Your task to perform on an android device: open app "ColorNote Notepad Notes" Image 0: 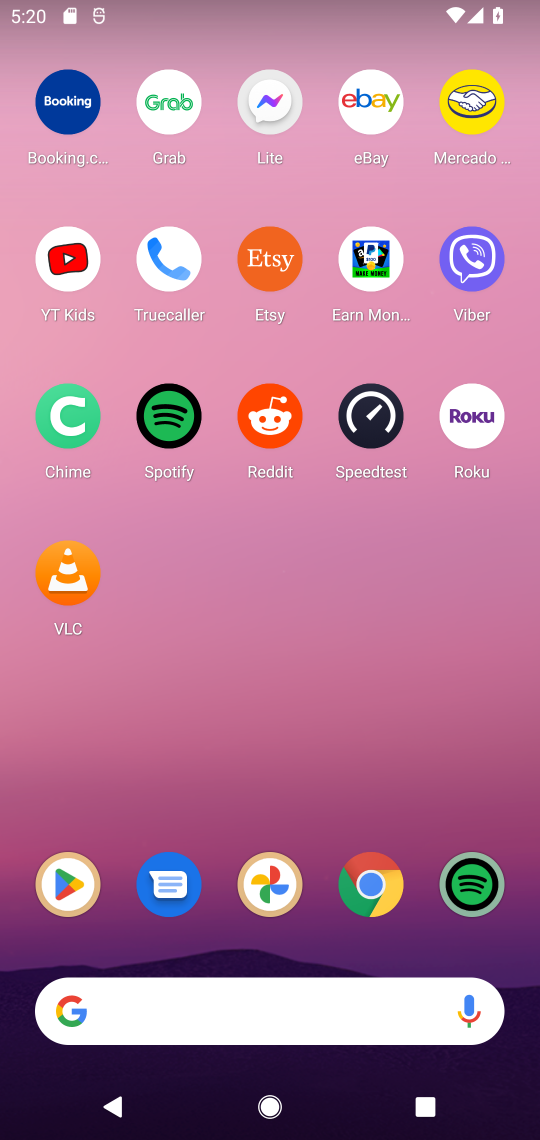
Step 0: drag from (302, 743) to (311, 99)
Your task to perform on an android device: open app "ColorNote Notepad Notes" Image 1: 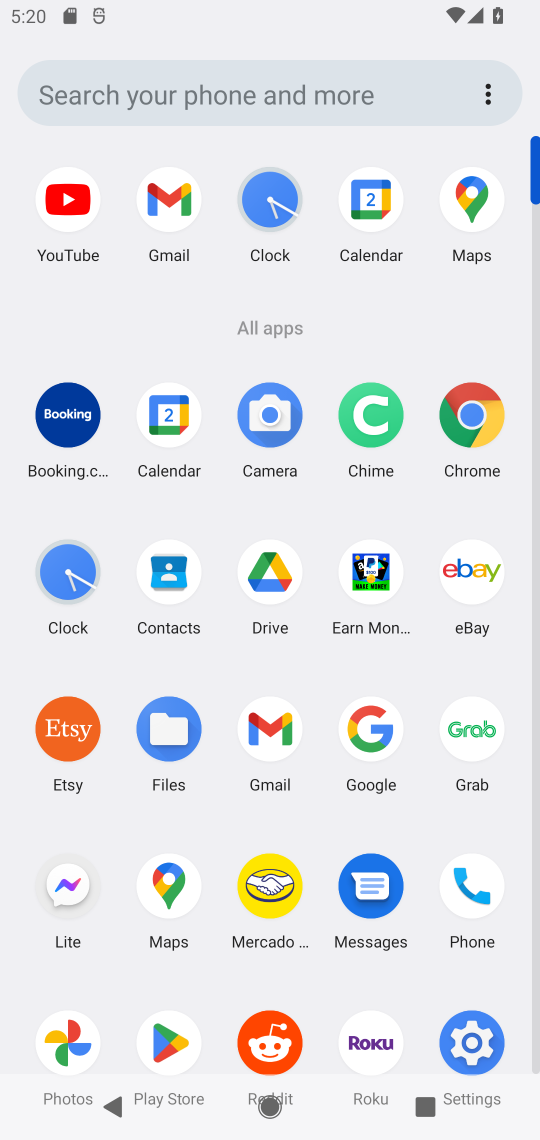
Step 1: click (188, 1033)
Your task to perform on an android device: open app "ColorNote Notepad Notes" Image 2: 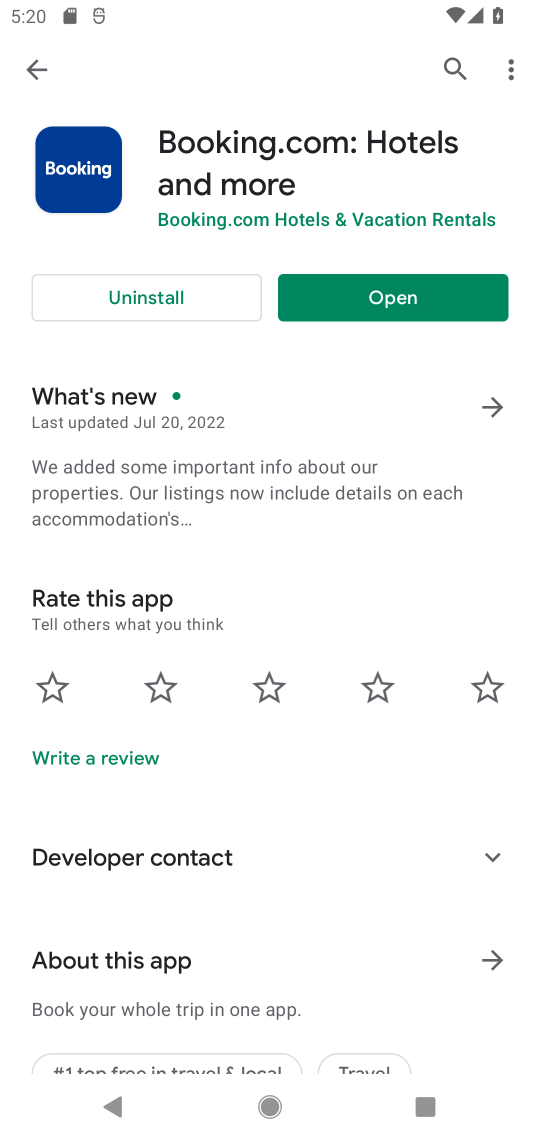
Step 2: click (42, 68)
Your task to perform on an android device: open app "ColorNote Notepad Notes" Image 3: 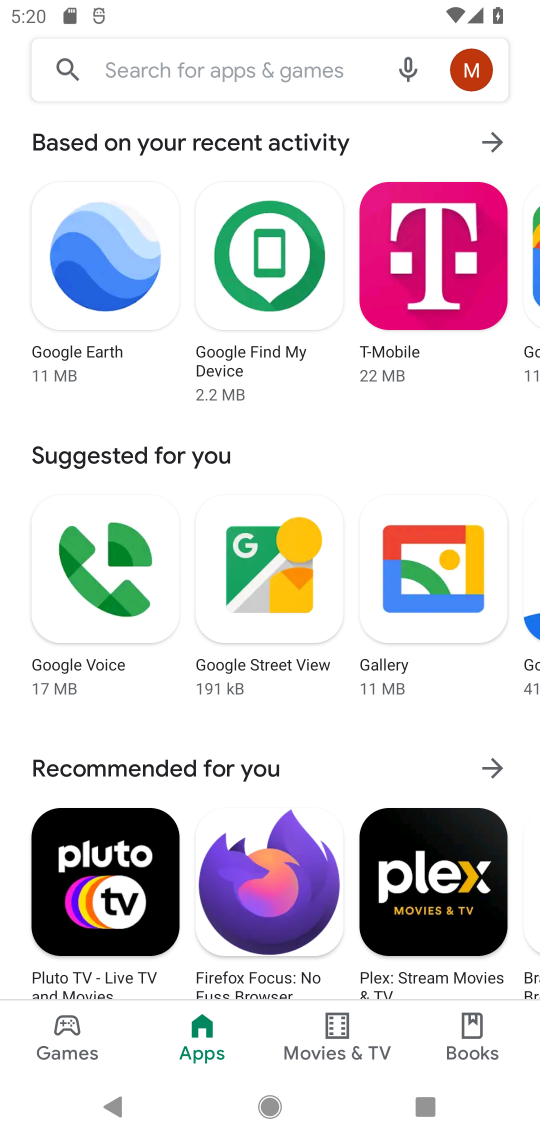
Step 3: click (137, 65)
Your task to perform on an android device: open app "ColorNote Notepad Notes" Image 4: 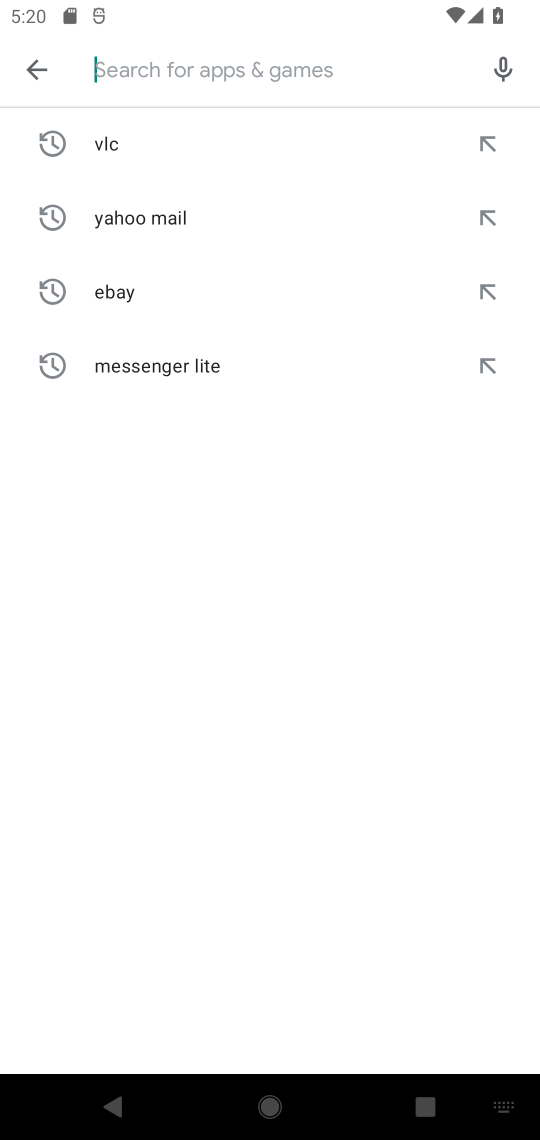
Step 4: drag from (236, 1134) to (525, 1134)
Your task to perform on an android device: open app "ColorNote Notepad Notes" Image 5: 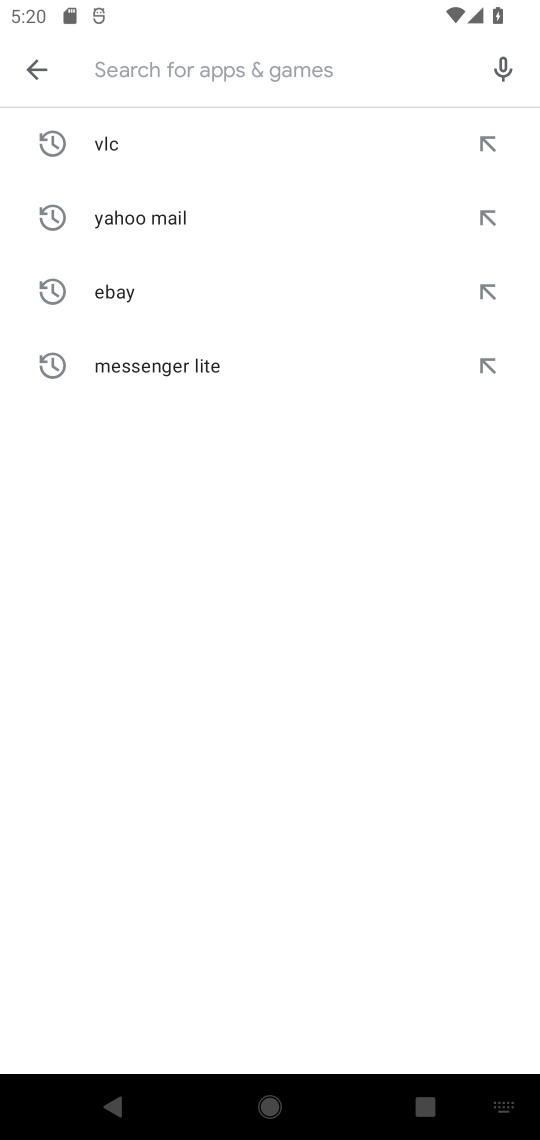
Step 5: type "ColorNote Notepad Notes""
Your task to perform on an android device: open app "ColorNote Notepad Notes" Image 6: 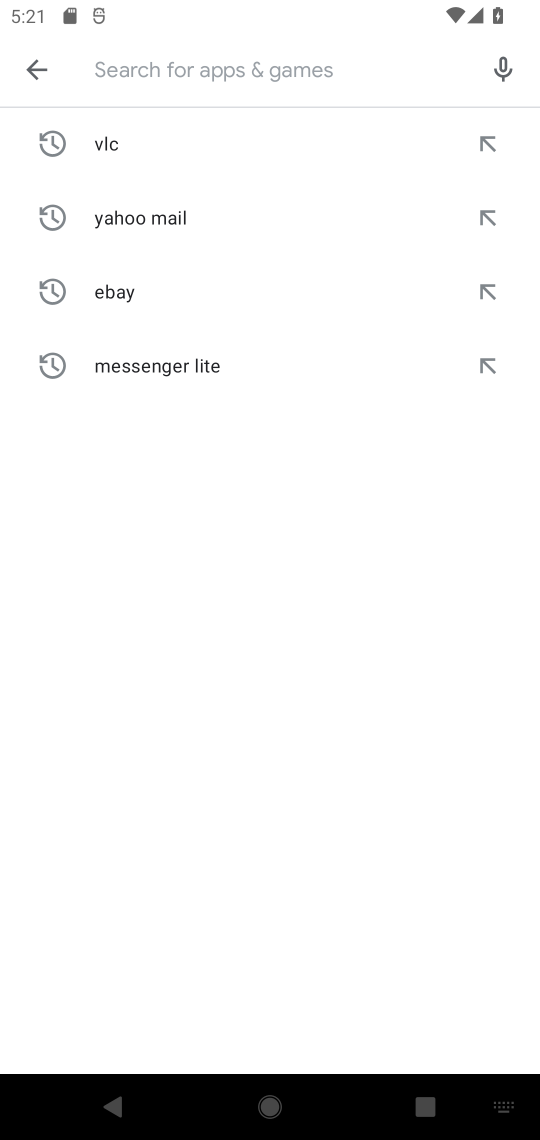
Step 6: type ""
Your task to perform on an android device: open app "ColorNote Notepad Notes" Image 7: 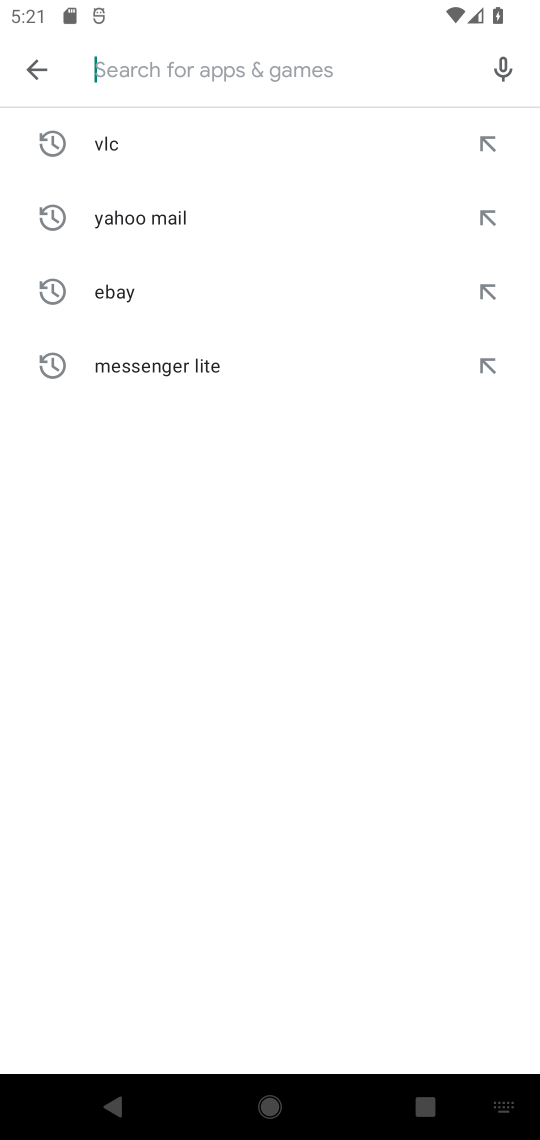
Step 7: type "Colornote notoad notes"
Your task to perform on an android device: open app "ColorNote Notepad Notes" Image 8: 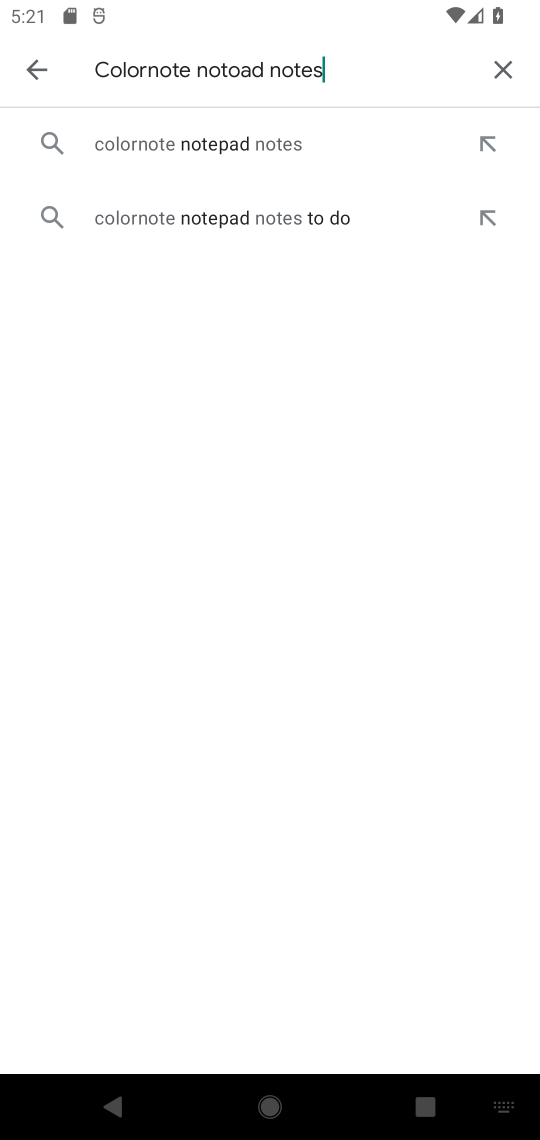
Step 8: click (192, 152)
Your task to perform on an android device: open app "ColorNote Notepad Notes" Image 9: 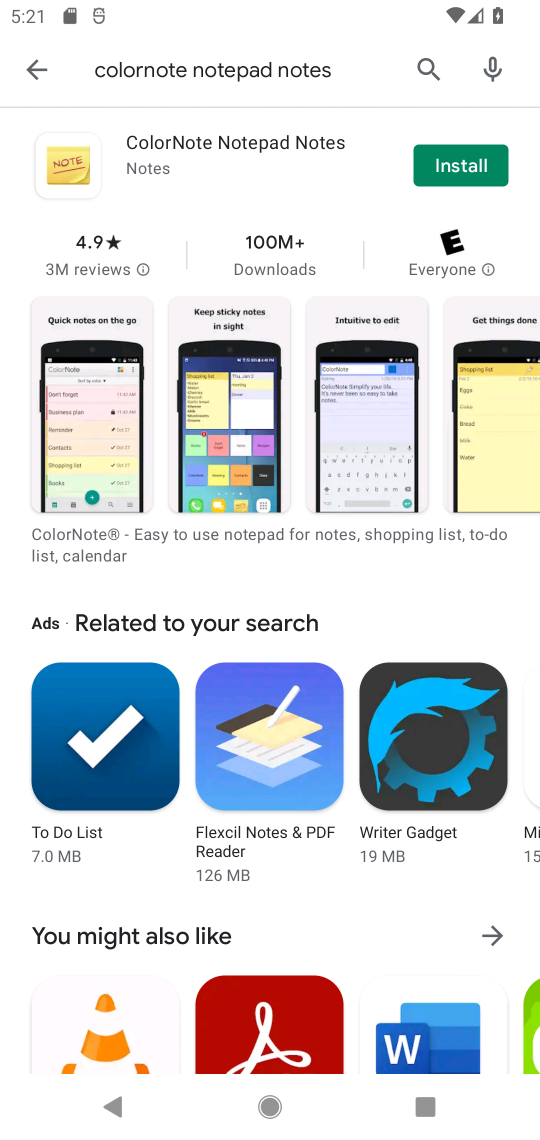
Step 9: click (413, 146)
Your task to perform on an android device: open app "ColorNote Notepad Notes" Image 10: 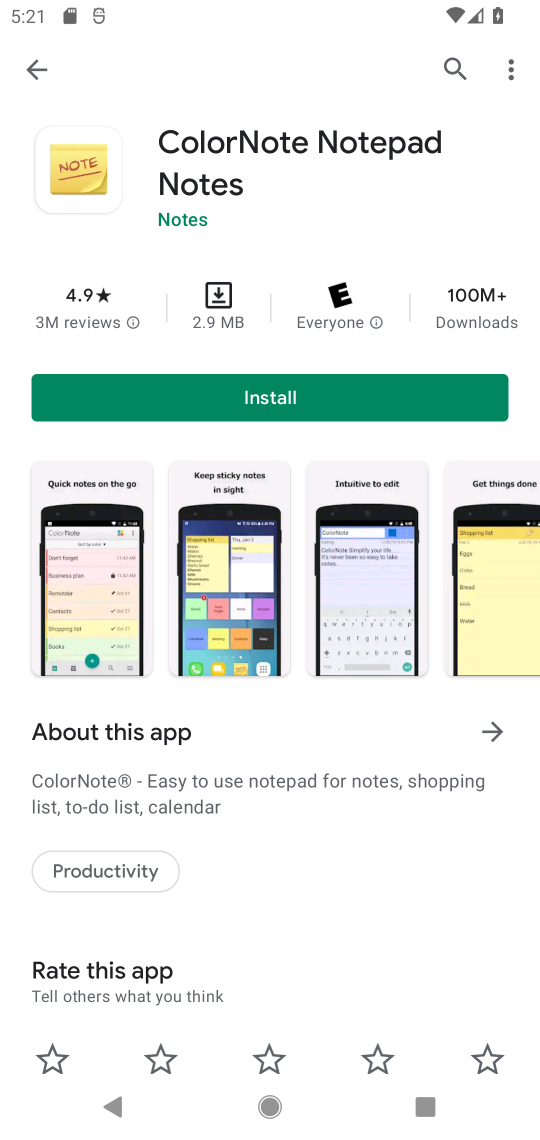
Step 10: click (365, 397)
Your task to perform on an android device: open app "ColorNote Notepad Notes" Image 11: 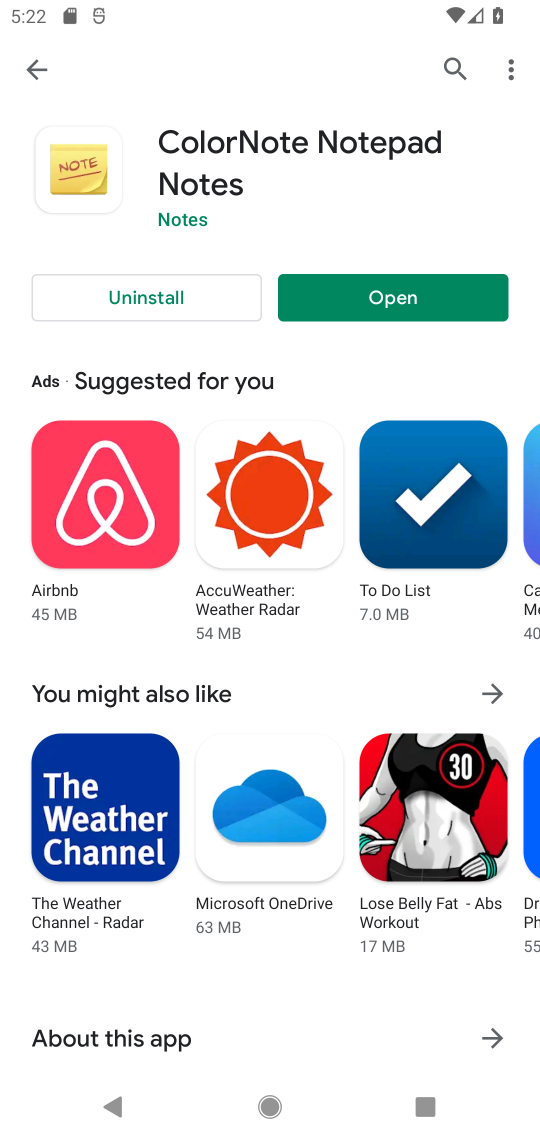
Step 11: task complete